Your task to perform on an android device: open wifi settings Image 0: 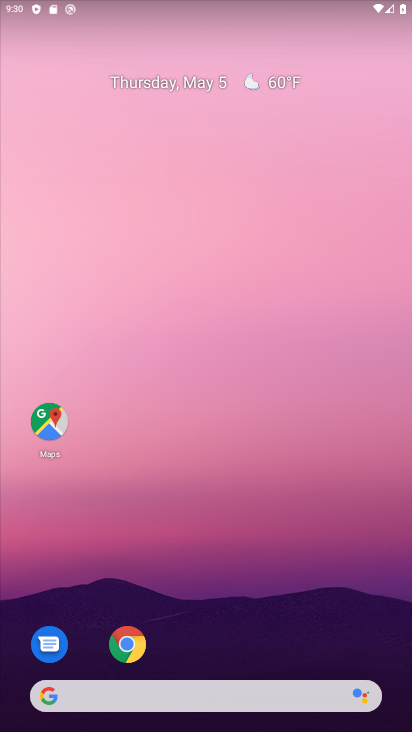
Step 0: drag from (376, 625) to (336, 119)
Your task to perform on an android device: open wifi settings Image 1: 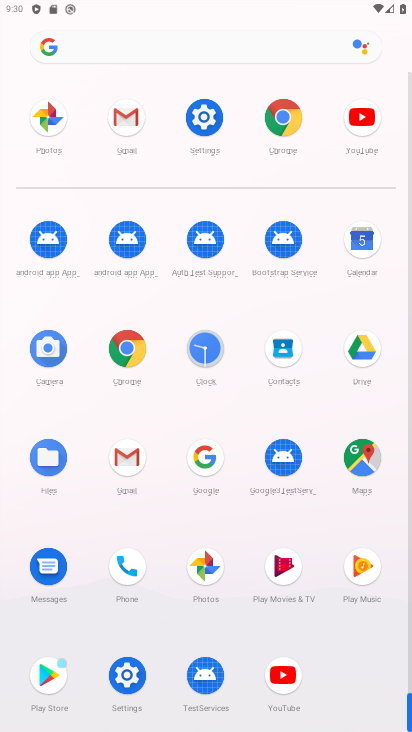
Step 1: click (134, 681)
Your task to perform on an android device: open wifi settings Image 2: 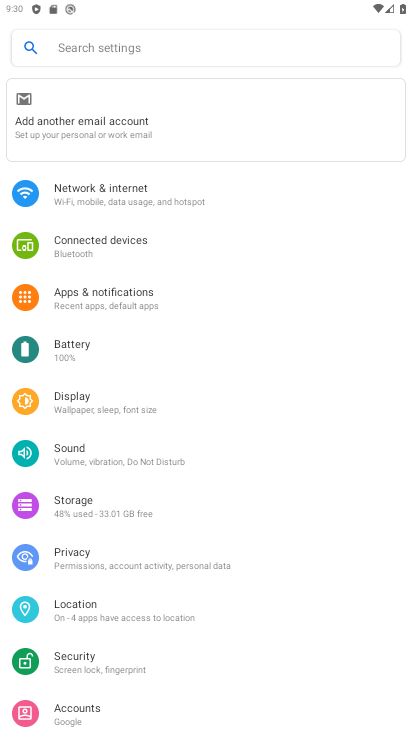
Step 2: click (163, 191)
Your task to perform on an android device: open wifi settings Image 3: 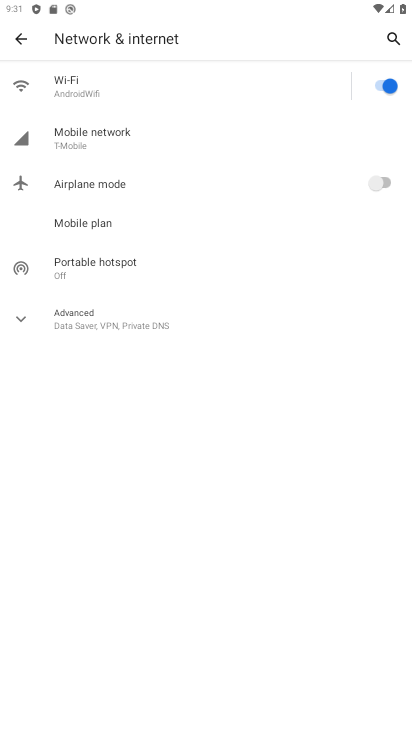
Step 3: click (121, 86)
Your task to perform on an android device: open wifi settings Image 4: 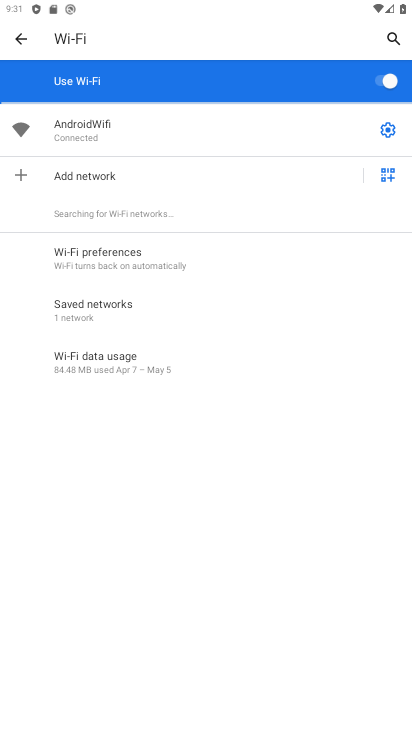
Step 4: click (383, 127)
Your task to perform on an android device: open wifi settings Image 5: 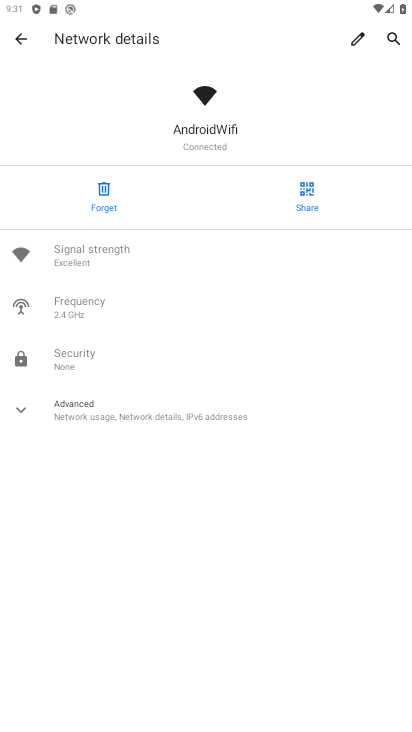
Step 5: task complete